Your task to perform on an android device: Play the last video I watched on Youtube Image 0: 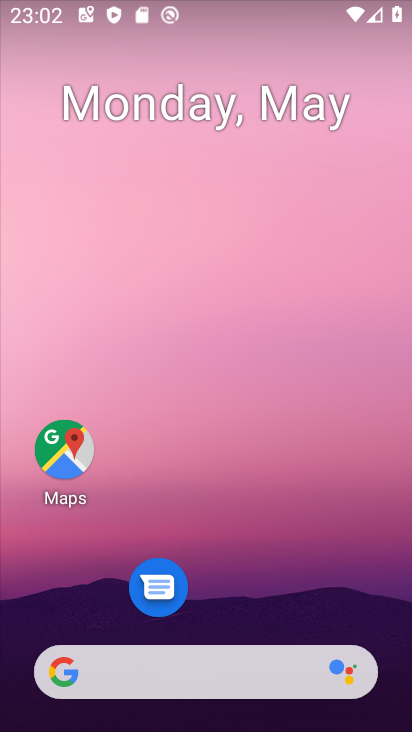
Step 0: drag from (212, 636) to (131, 85)
Your task to perform on an android device: Play the last video I watched on Youtube Image 1: 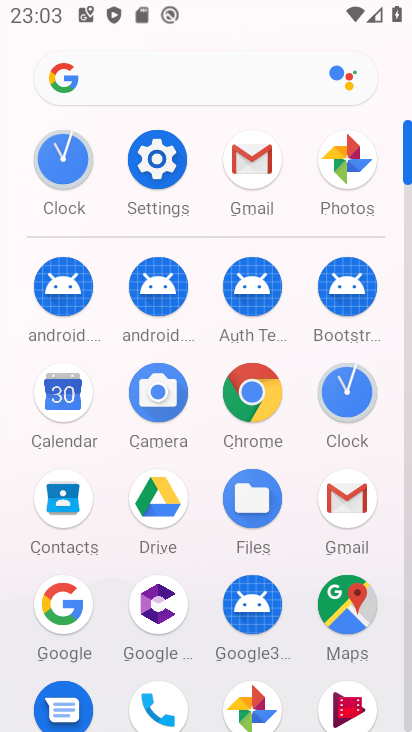
Step 1: drag from (303, 618) to (268, 152)
Your task to perform on an android device: Play the last video I watched on Youtube Image 2: 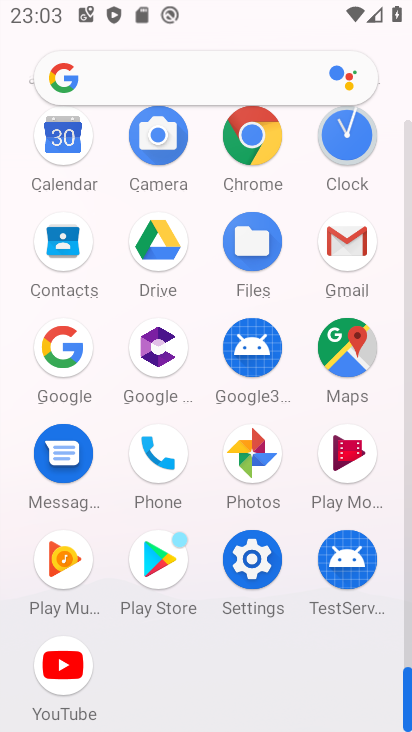
Step 2: click (51, 660)
Your task to perform on an android device: Play the last video I watched on Youtube Image 3: 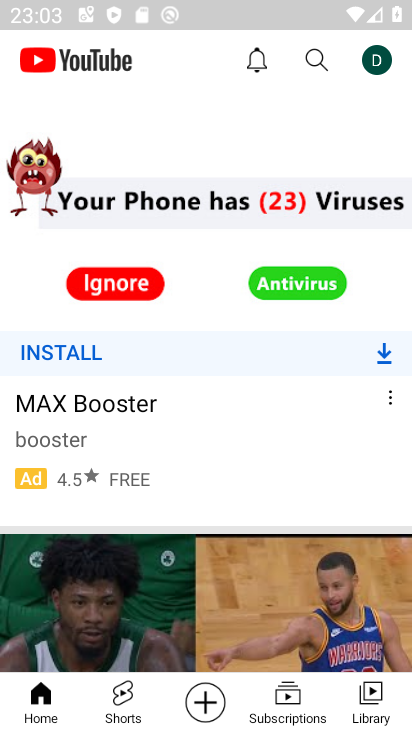
Step 3: click (369, 703)
Your task to perform on an android device: Play the last video I watched on Youtube Image 4: 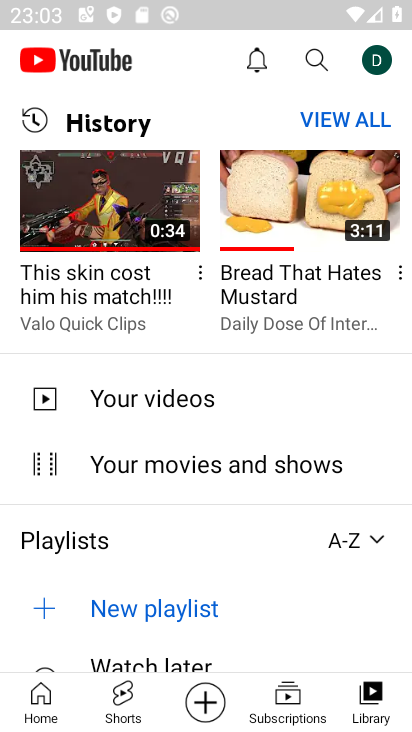
Step 4: task complete